Your task to perform on an android device: Open Google Image 0: 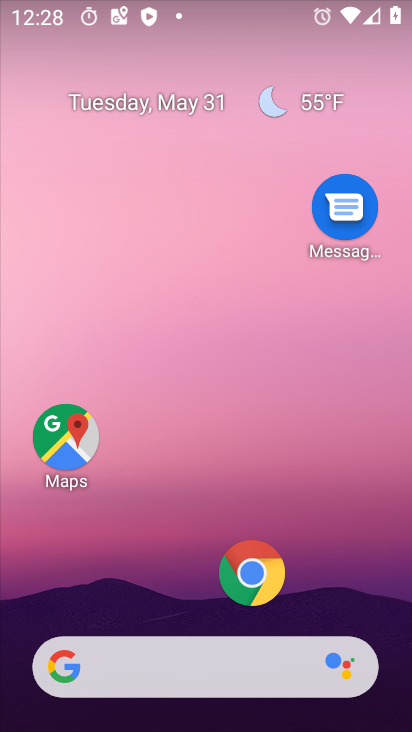
Step 0: drag from (160, 592) to (153, 38)
Your task to perform on an android device: Open Google Image 1: 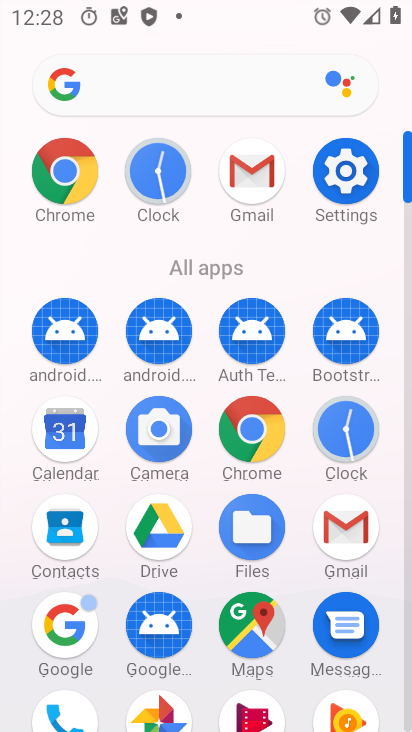
Step 1: click (71, 628)
Your task to perform on an android device: Open Google Image 2: 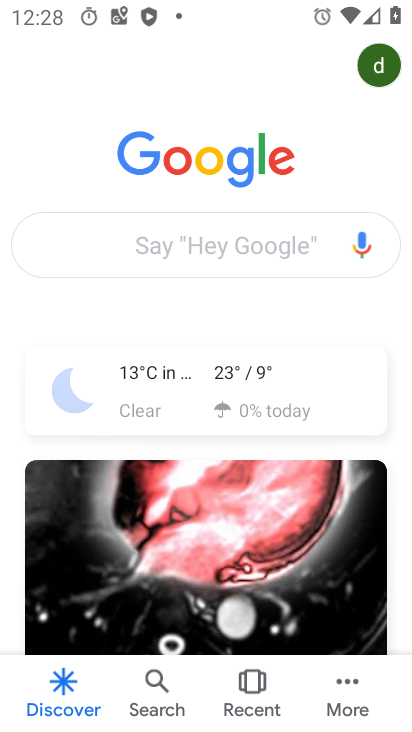
Step 2: task complete